Your task to perform on an android device: turn off notifications in google photos Image 0: 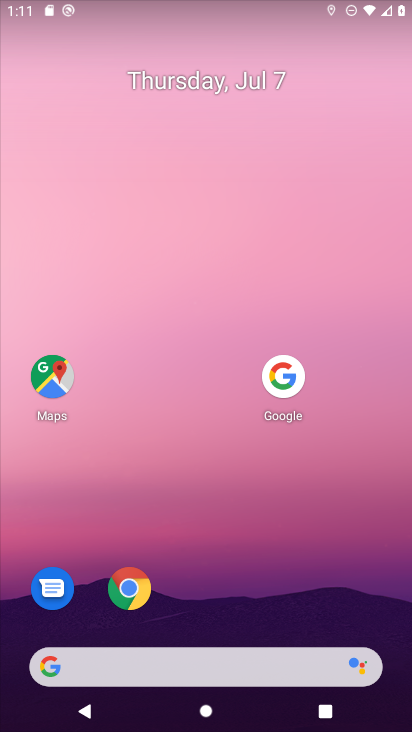
Step 0: drag from (219, 668) to (326, 76)
Your task to perform on an android device: turn off notifications in google photos Image 1: 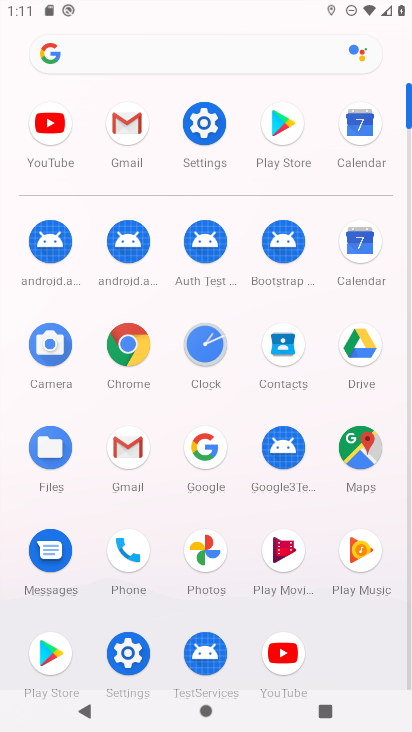
Step 1: click (199, 552)
Your task to perform on an android device: turn off notifications in google photos Image 2: 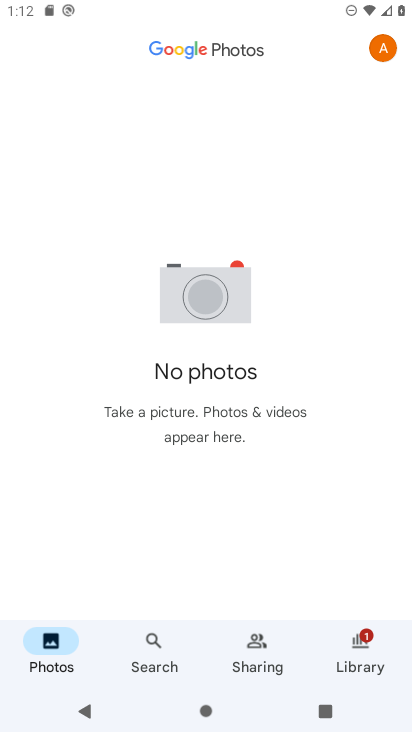
Step 2: click (385, 51)
Your task to perform on an android device: turn off notifications in google photos Image 3: 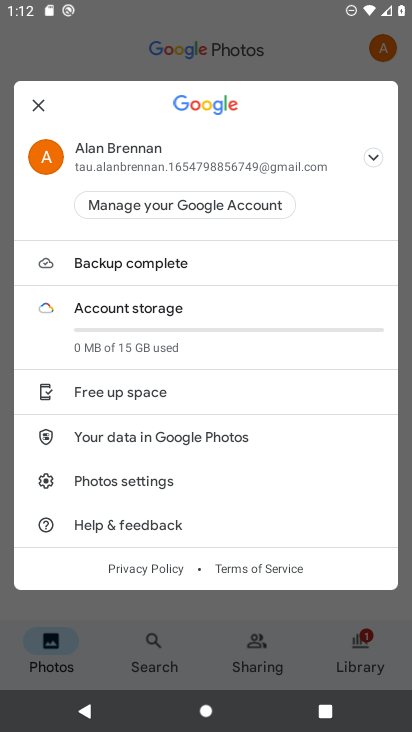
Step 3: click (147, 485)
Your task to perform on an android device: turn off notifications in google photos Image 4: 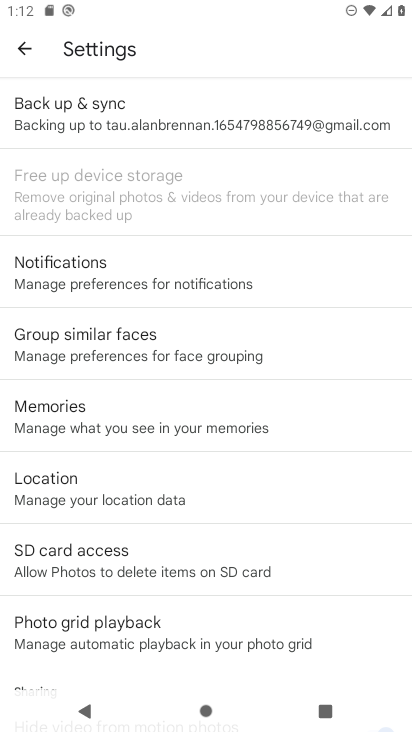
Step 4: click (165, 260)
Your task to perform on an android device: turn off notifications in google photos Image 5: 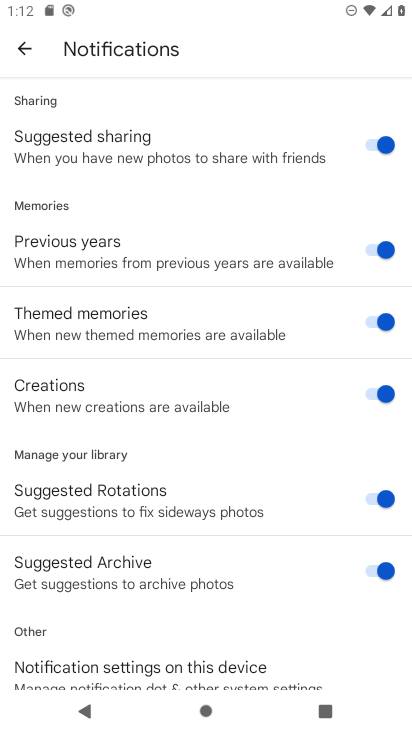
Step 5: drag from (273, 339) to (344, 92)
Your task to perform on an android device: turn off notifications in google photos Image 6: 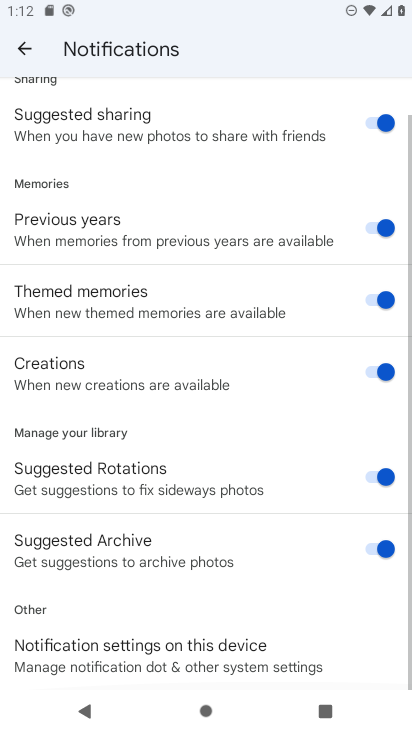
Step 6: click (176, 655)
Your task to perform on an android device: turn off notifications in google photos Image 7: 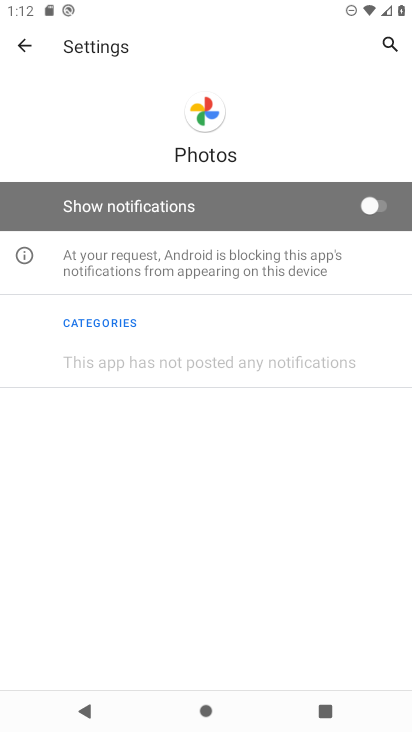
Step 7: task complete